Your task to perform on an android device: What's the weather today? Image 0: 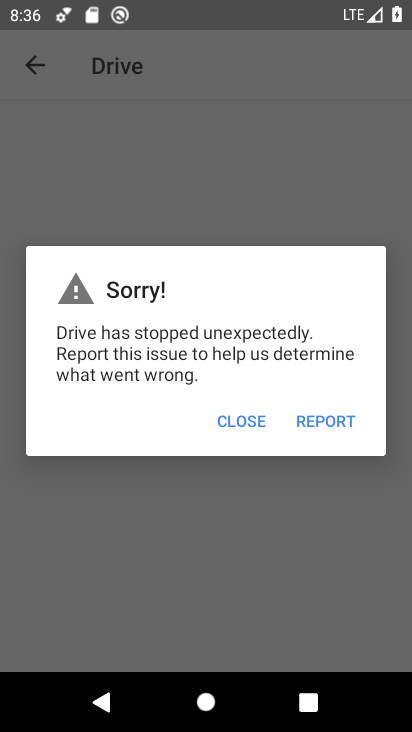
Step 0: press home button
Your task to perform on an android device: What's the weather today? Image 1: 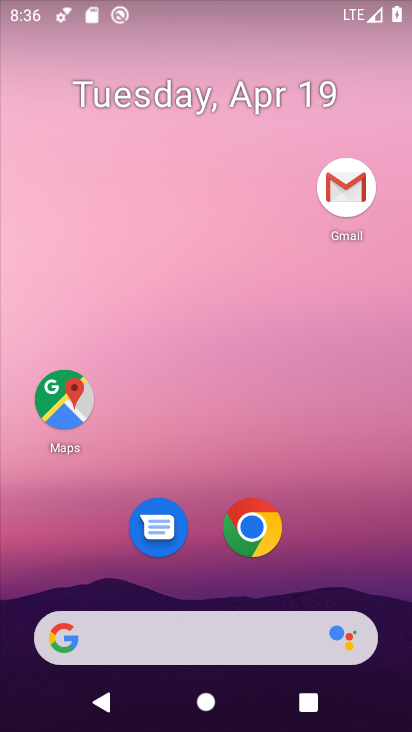
Step 1: click (262, 532)
Your task to perform on an android device: What's the weather today? Image 2: 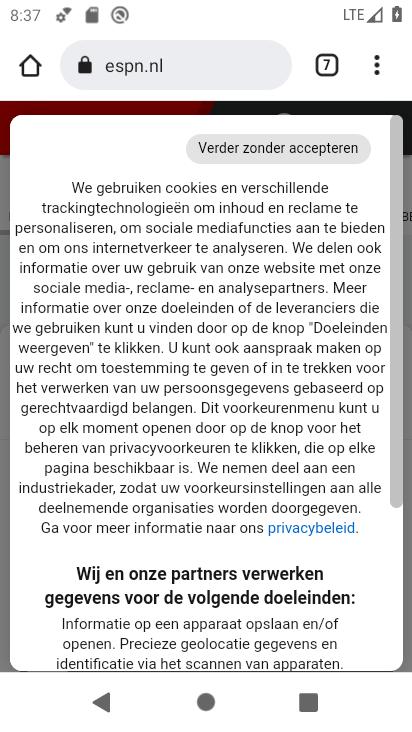
Step 2: click (169, 72)
Your task to perform on an android device: What's the weather today? Image 3: 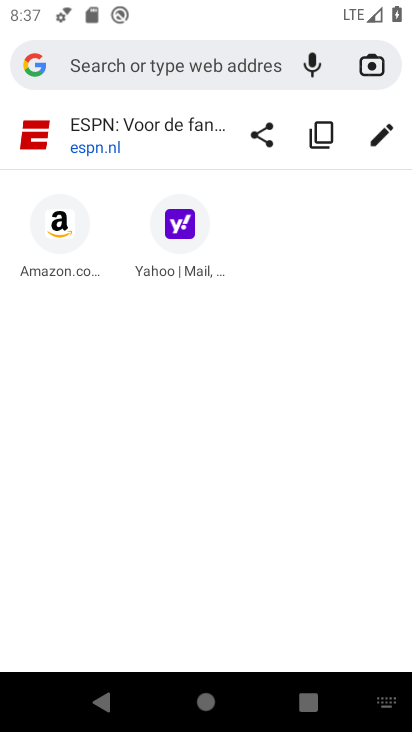
Step 3: type "what's the weather today"
Your task to perform on an android device: What's the weather today? Image 4: 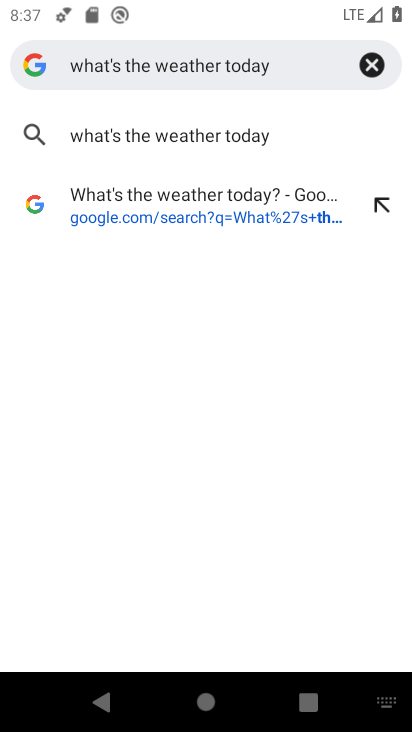
Step 4: click (272, 137)
Your task to perform on an android device: What's the weather today? Image 5: 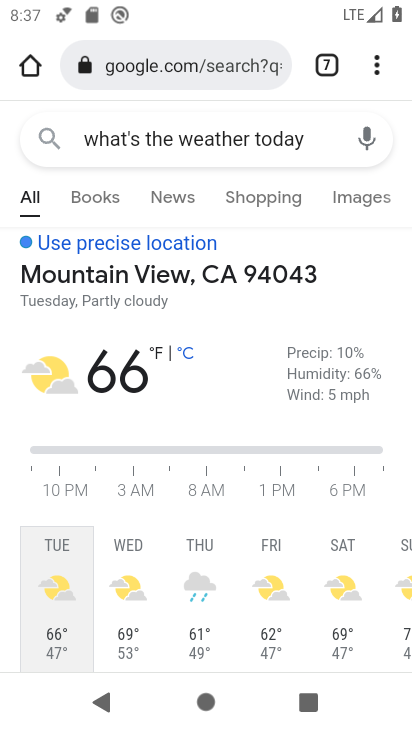
Step 5: task complete